Your task to perform on an android device: Open battery settings Image 0: 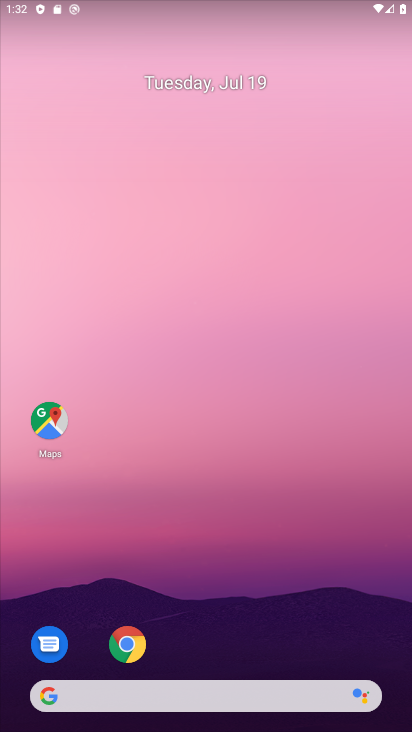
Step 0: drag from (191, 677) to (193, 77)
Your task to perform on an android device: Open battery settings Image 1: 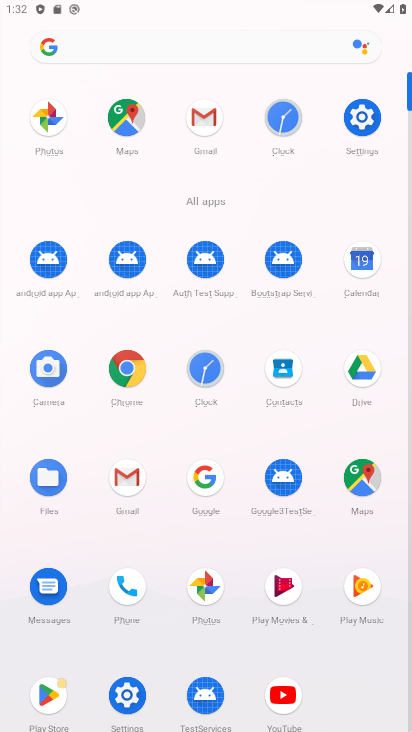
Step 1: click (367, 107)
Your task to perform on an android device: Open battery settings Image 2: 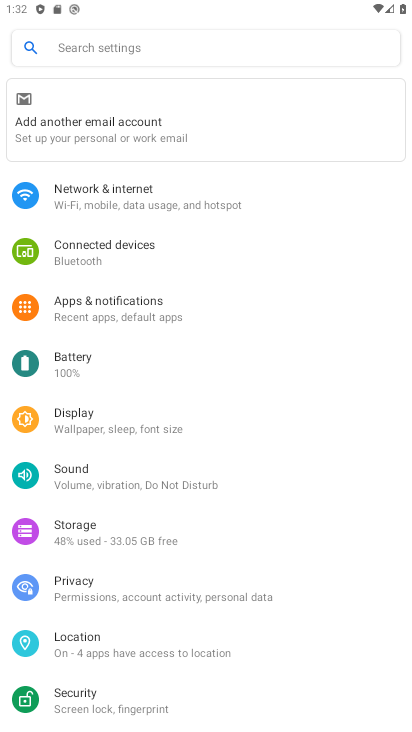
Step 2: drag from (148, 455) to (129, 345)
Your task to perform on an android device: Open battery settings Image 3: 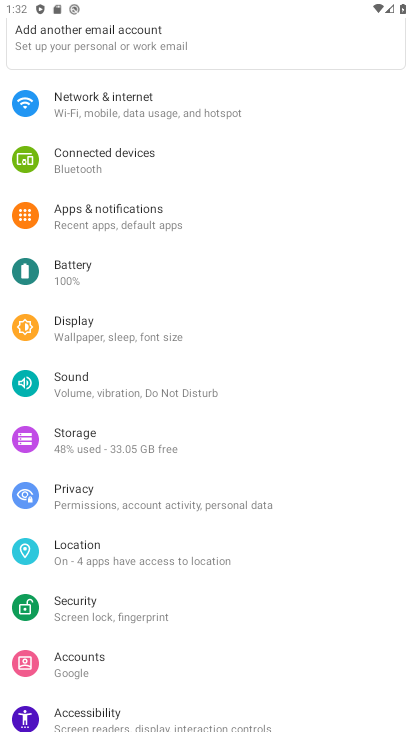
Step 3: click (106, 268)
Your task to perform on an android device: Open battery settings Image 4: 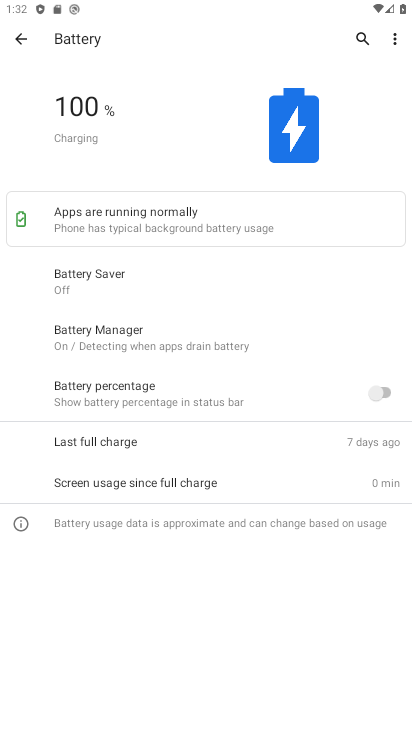
Step 4: task complete